Your task to perform on an android device: turn on notifications settings in the gmail app Image 0: 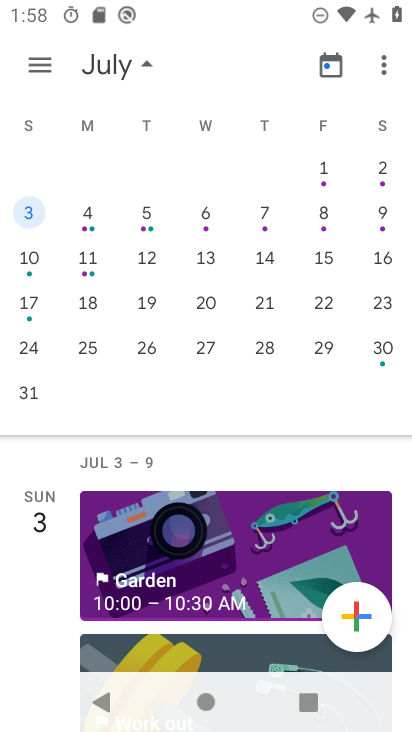
Step 0: press home button
Your task to perform on an android device: turn on notifications settings in the gmail app Image 1: 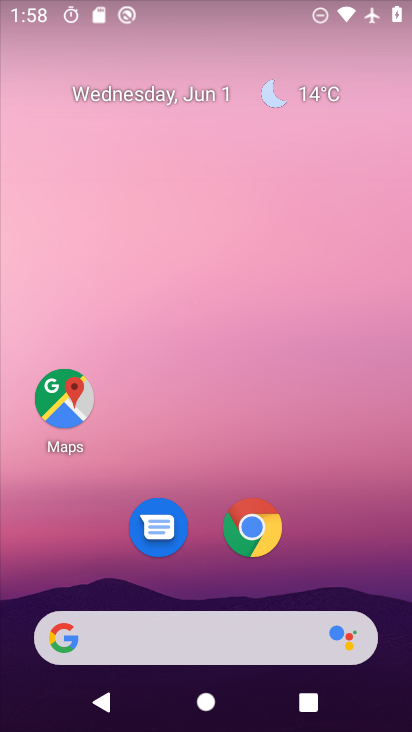
Step 1: drag from (180, 596) to (0, 292)
Your task to perform on an android device: turn on notifications settings in the gmail app Image 2: 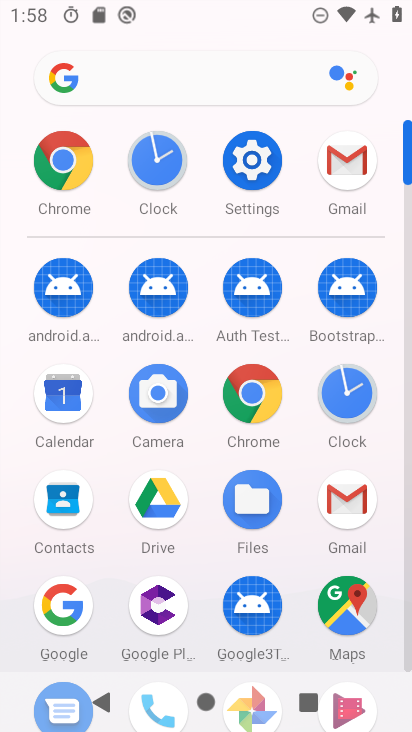
Step 2: click (349, 514)
Your task to perform on an android device: turn on notifications settings in the gmail app Image 3: 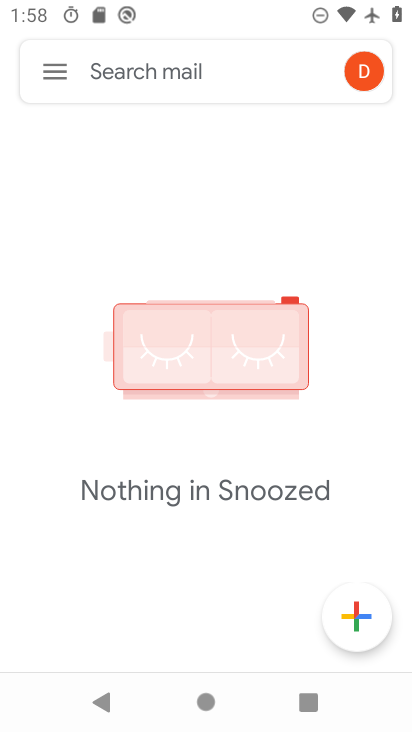
Step 3: click (47, 76)
Your task to perform on an android device: turn on notifications settings in the gmail app Image 4: 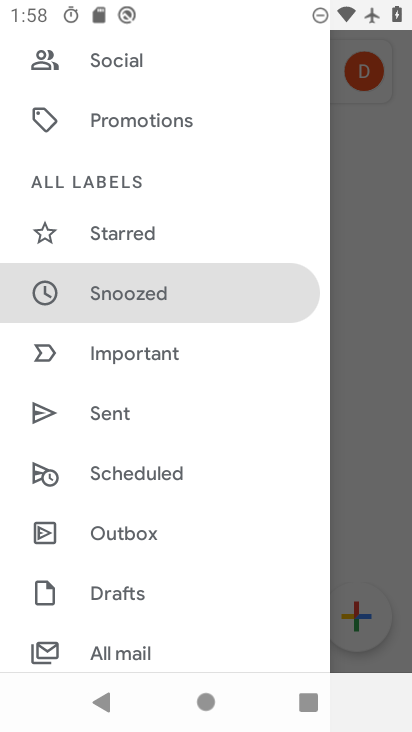
Step 4: drag from (111, 531) to (134, 118)
Your task to perform on an android device: turn on notifications settings in the gmail app Image 5: 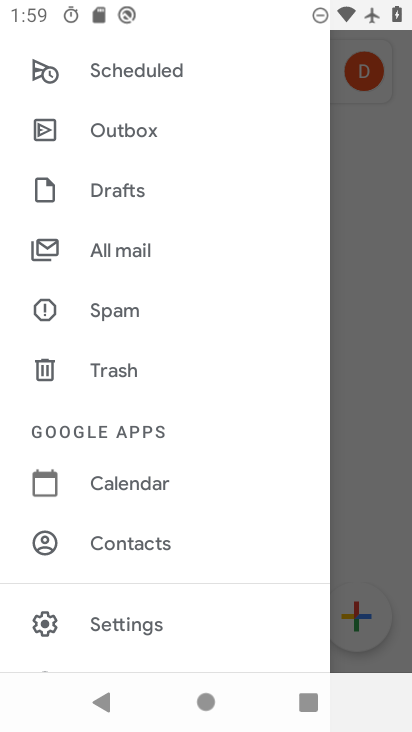
Step 5: click (100, 625)
Your task to perform on an android device: turn on notifications settings in the gmail app Image 6: 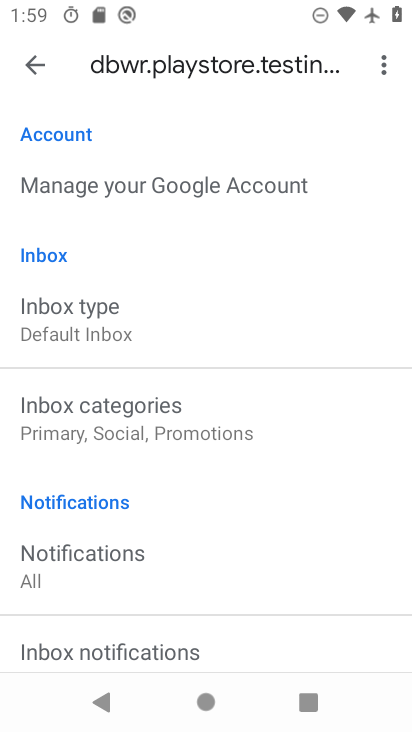
Step 6: click (24, 60)
Your task to perform on an android device: turn on notifications settings in the gmail app Image 7: 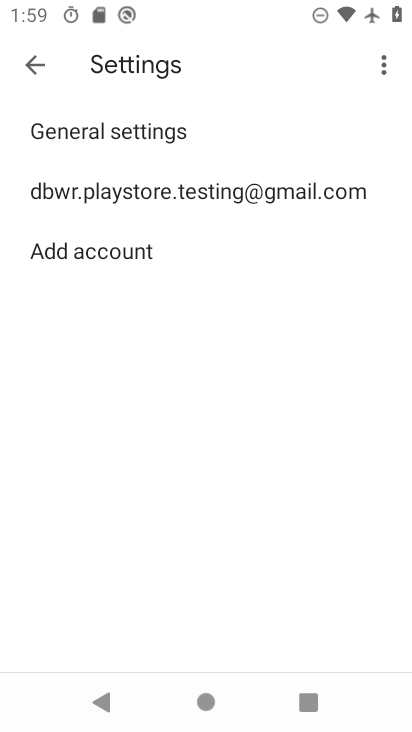
Step 7: click (118, 146)
Your task to perform on an android device: turn on notifications settings in the gmail app Image 8: 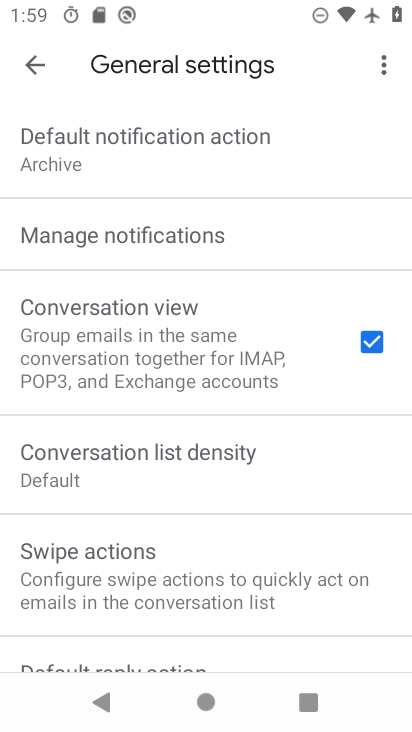
Step 8: click (102, 235)
Your task to perform on an android device: turn on notifications settings in the gmail app Image 9: 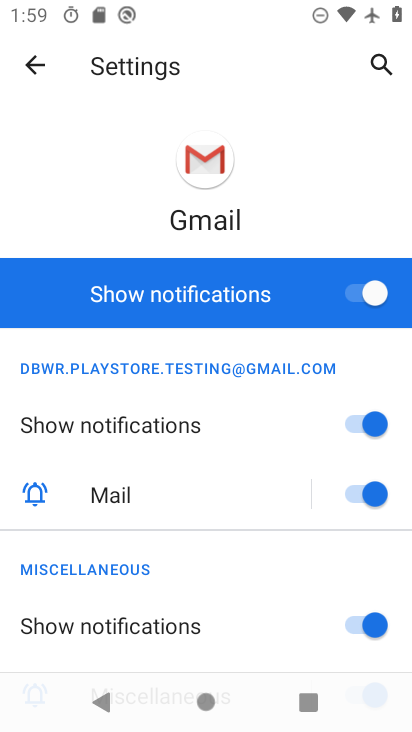
Step 9: task complete